Your task to perform on an android device: How old is the earth? Image 0: 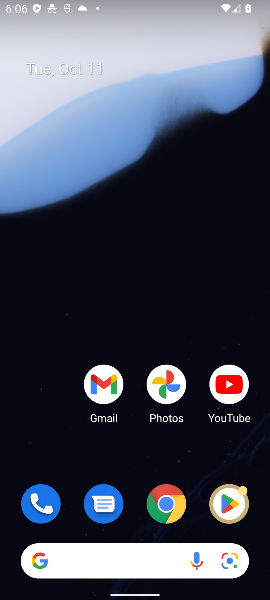
Step 0: click (74, 569)
Your task to perform on an android device: How old is the earth? Image 1: 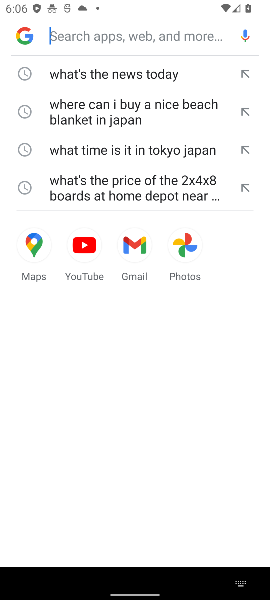
Step 1: click (100, 34)
Your task to perform on an android device: How old is the earth? Image 2: 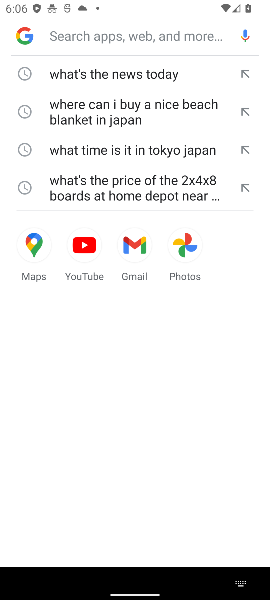
Step 2: type "How old is the earth?"
Your task to perform on an android device: How old is the earth? Image 3: 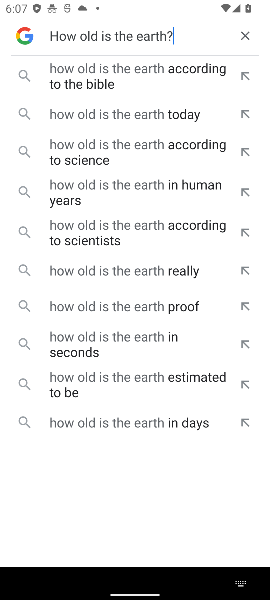
Step 3: click (119, 115)
Your task to perform on an android device: How old is the earth? Image 4: 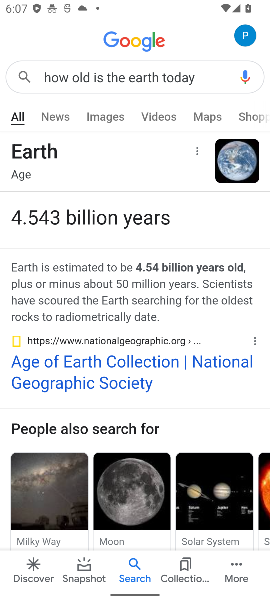
Step 4: task complete